Your task to perform on an android device: see tabs open on other devices in the chrome app Image 0: 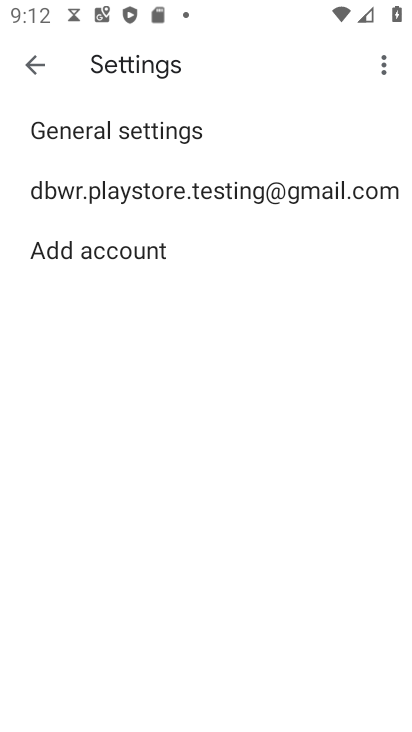
Step 0: click (36, 59)
Your task to perform on an android device: see tabs open on other devices in the chrome app Image 1: 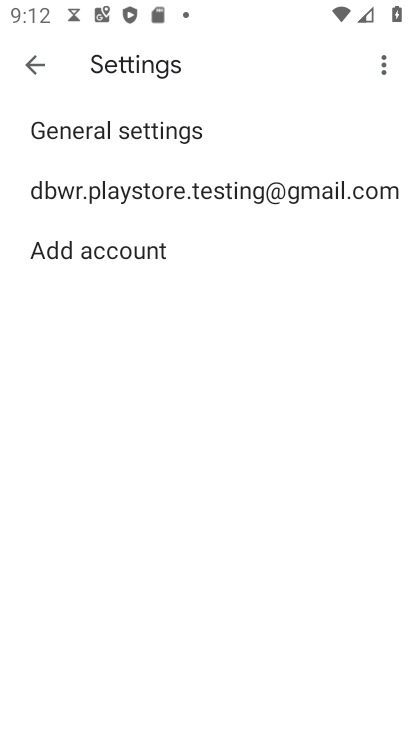
Step 1: press back button
Your task to perform on an android device: see tabs open on other devices in the chrome app Image 2: 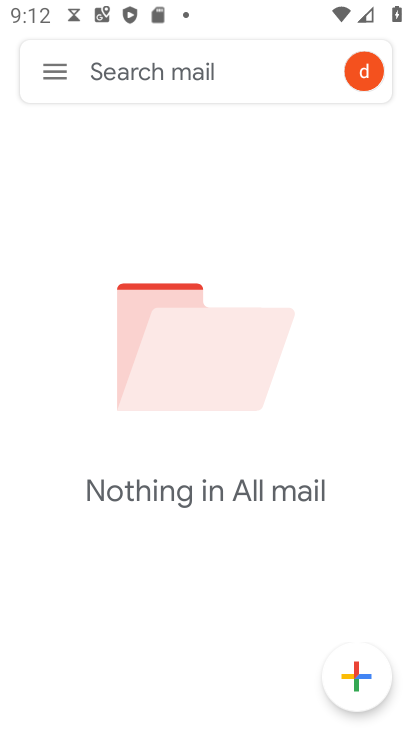
Step 2: press home button
Your task to perform on an android device: see tabs open on other devices in the chrome app Image 3: 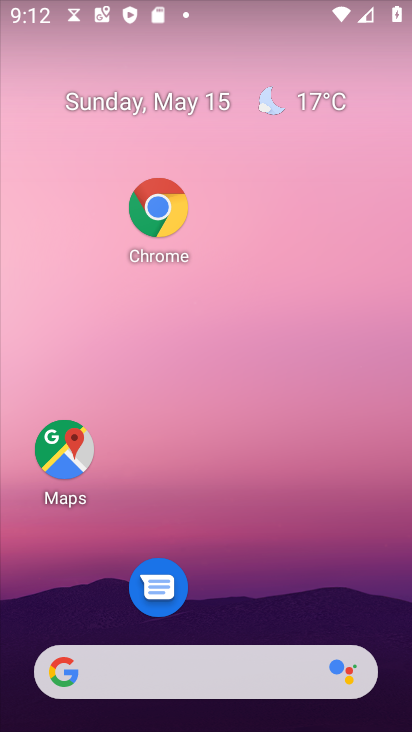
Step 3: drag from (324, 609) to (226, 132)
Your task to perform on an android device: see tabs open on other devices in the chrome app Image 4: 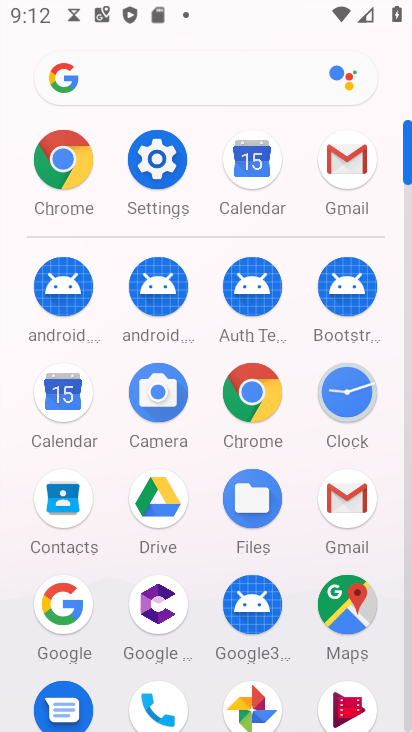
Step 4: click (255, 387)
Your task to perform on an android device: see tabs open on other devices in the chrome app Image 5: 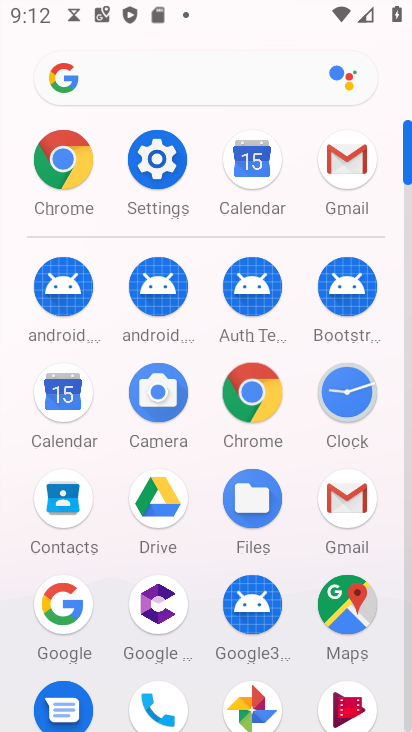
Step 5: click (255, 387)
Your task to perform on an android device: see tabs open on other devices in the chrome app Image 6: 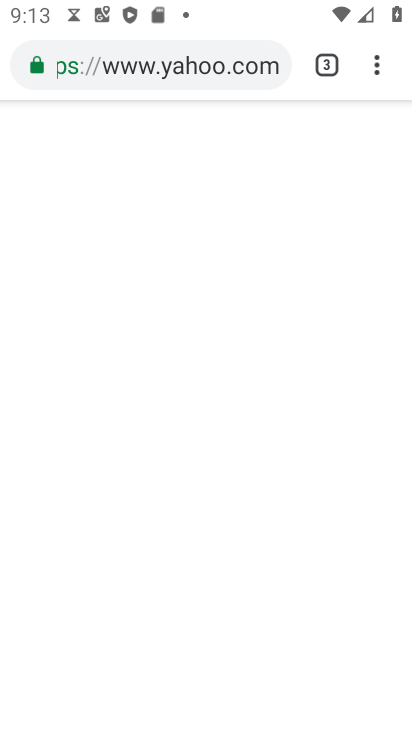
Step 6: task complete